Your task to perform on an android device: change notification settings in the gmail app Image 0: 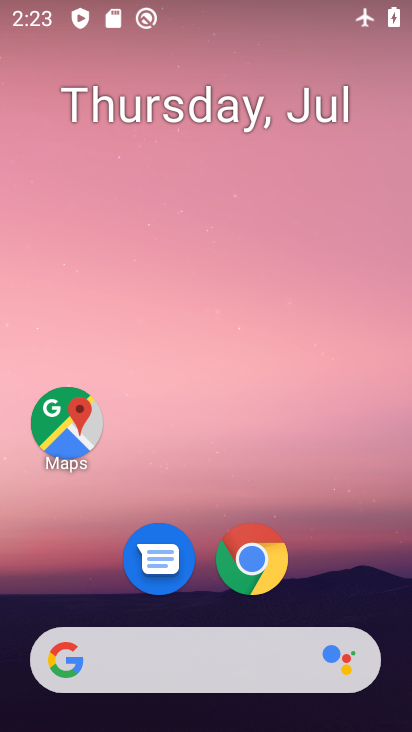
Step 0: drag from (191, 672) to (84, 4)
Your task to perform on an android device: change notification settings in the gmail app Image 1: 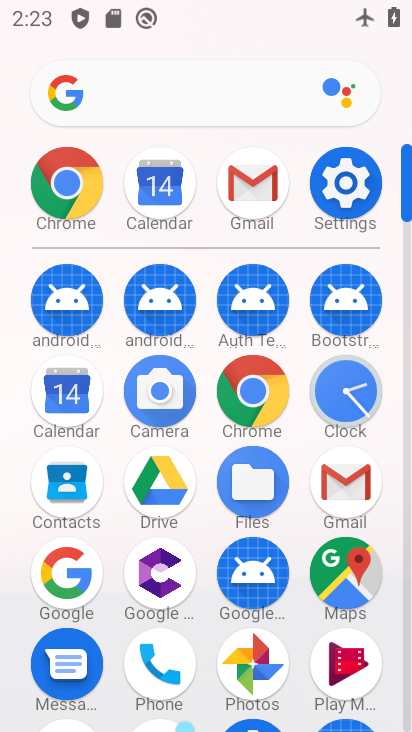
Step 1: click (331, 489)
Your task to perform on an android device: change notification settings in the gmail app Image 2: 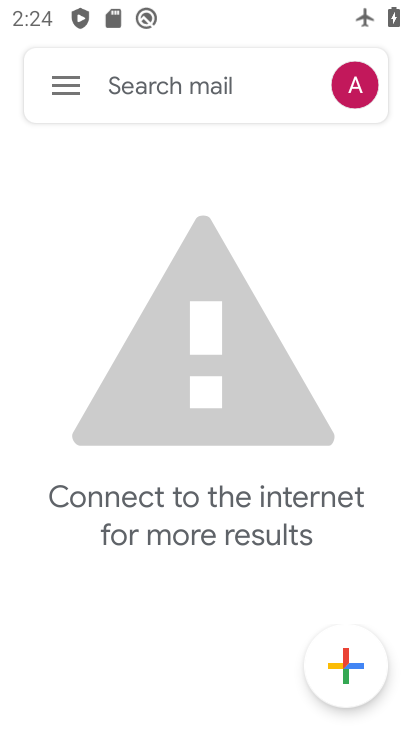
Step 2: click (66, 86)
Your task to perform on an android device: change notification settings in the gmail app Image 3: 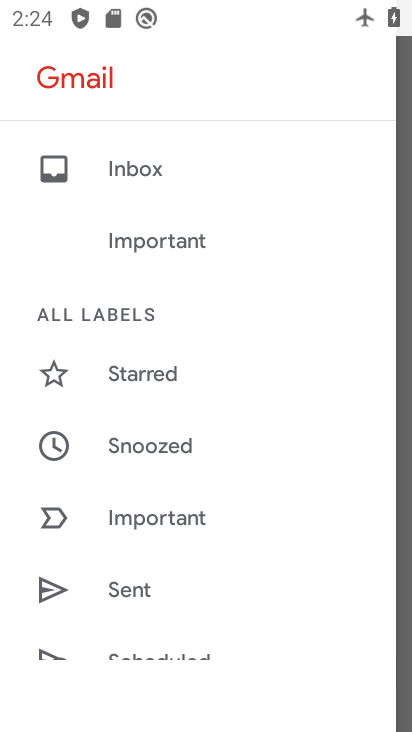
Step 3: drag from (200, 580) to (188, 123)
Your task to perform on an android device: change notification settings in the gmail app Image 4: 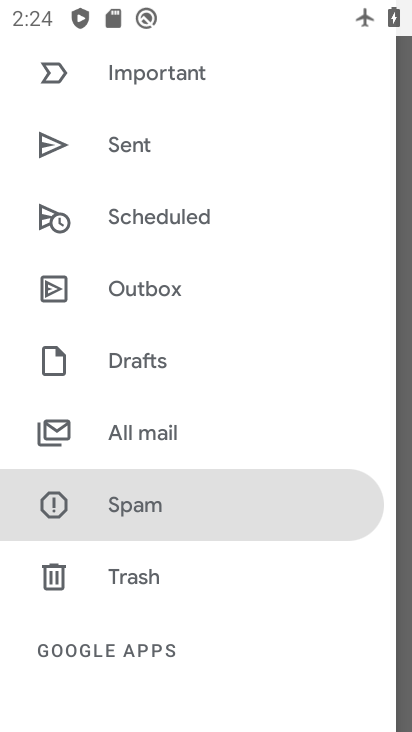
Step 4: drag from (126, 595) to (200, 159)
Your task to perform on an android device: change notification settings in the gmail app Image 5: 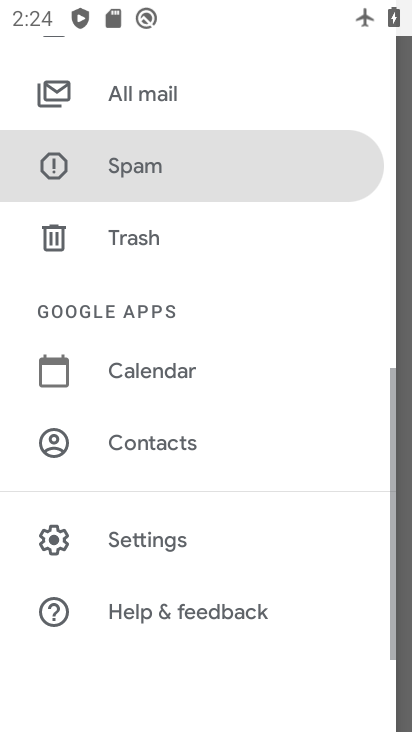
Step 5: click (157, 531)
Your task to perform on an android device: change notification settings in the gmail app Image 6: 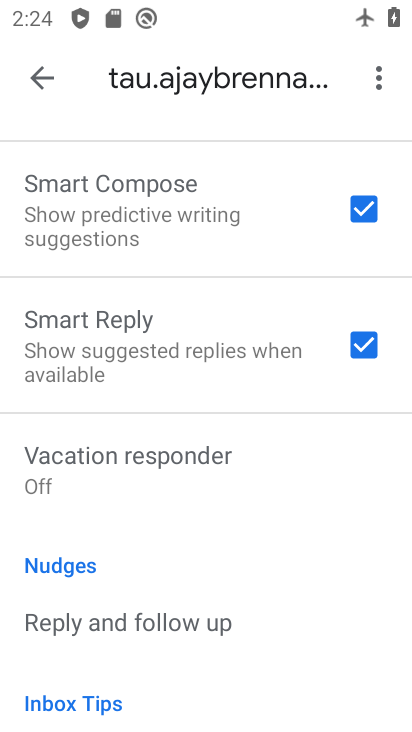
Step 6: click (47, 64)
Your task to perform on an android device: change notification settings in the gmail app Image 7: 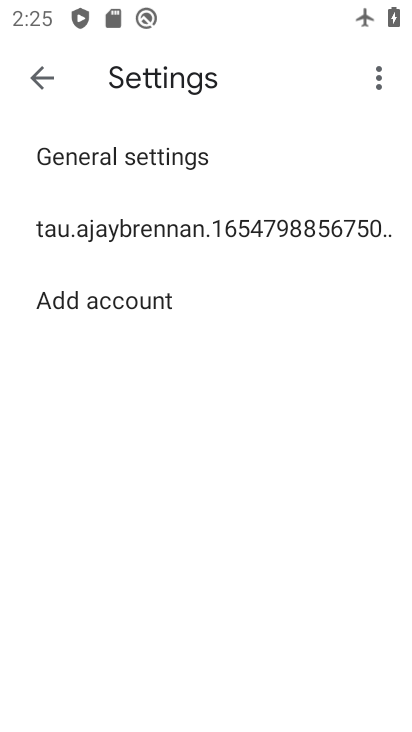
Step 7: click (158, 181)
Your task to perform on an android device: change notification settings in the gmail app Image 8: 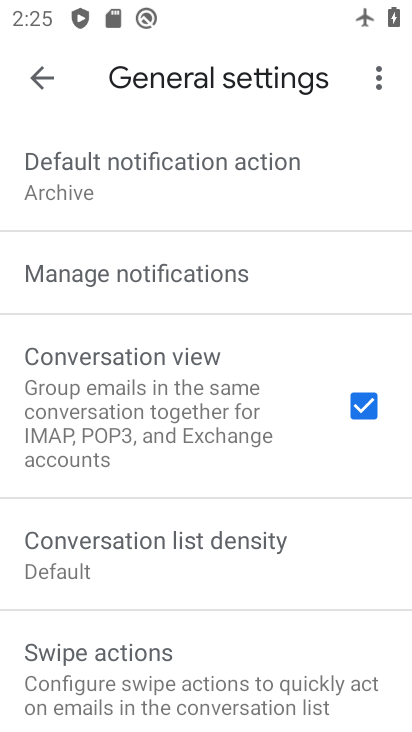
Step 8: click (194, 283)
Your task to perform on an android device: change notification settings in the gmail app Image 9: 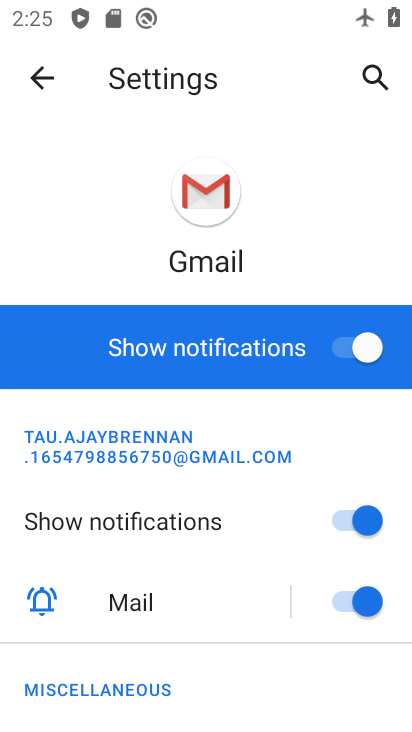
Step 9: click (370, 367)
Your task to perform on an android device: change notification settings in the gmail app Image 10: 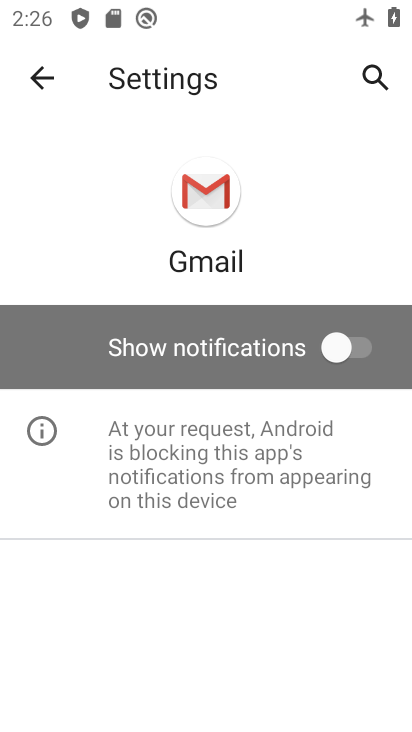
Step 10: task complete